Your task to perform on an android device: toggle translation in the chrome app Image 0: 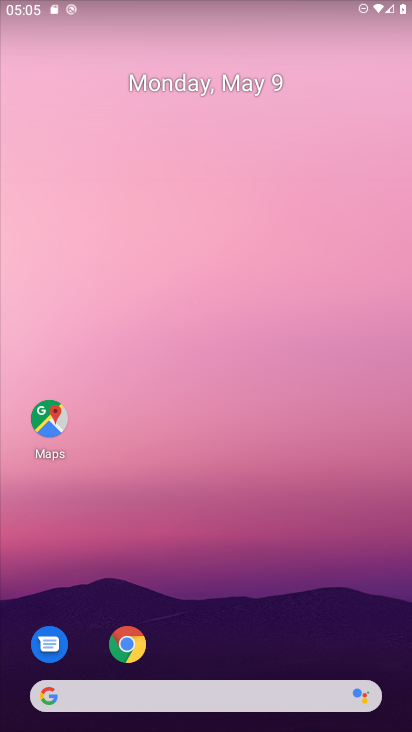
Step 0: click (128, 641)
Your task to perform on an android device: toggle translation in the chrome app Image 1: 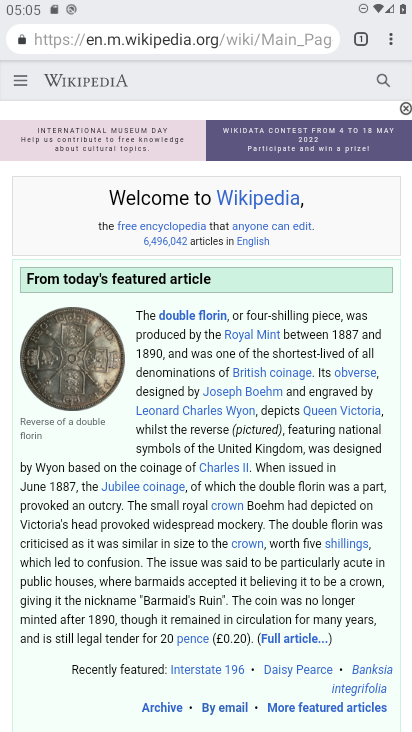
Step 1: click (392, 37)
Your task to perform on an android device: toggle translation in the chrome app Image 2: 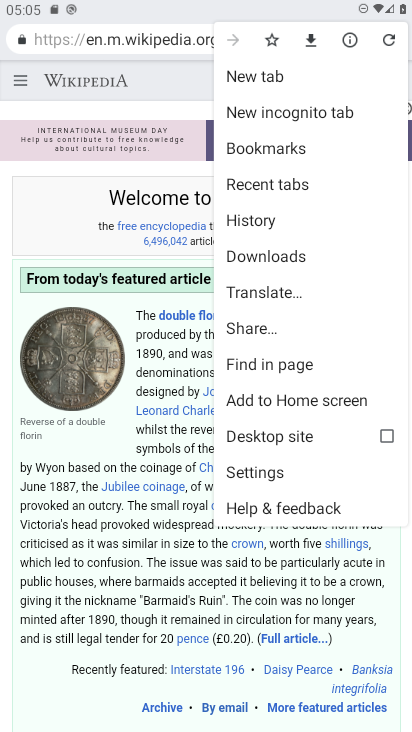
Step 2: click (263, 477)
Your task to perform on an android device: toggle translation in the chrome app Image 3: 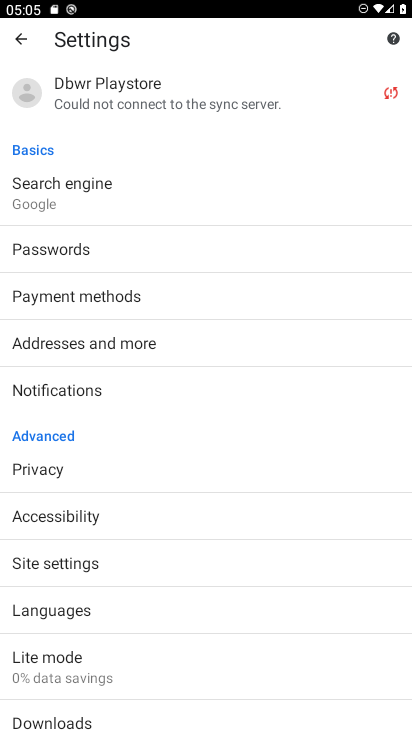
Step 3: click (67, 613)
Your task to perform on an android device: toggle translation in the chrome app Image 4: 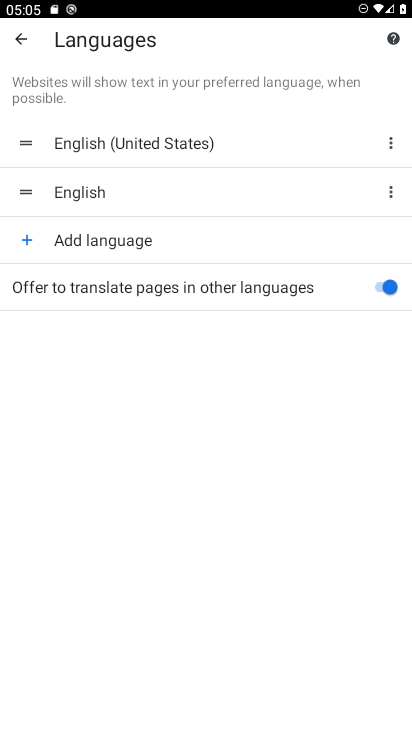
Step 4: click (390, 286)
Your task to perform on an android device: toggle translation in the chrome app Image 5: 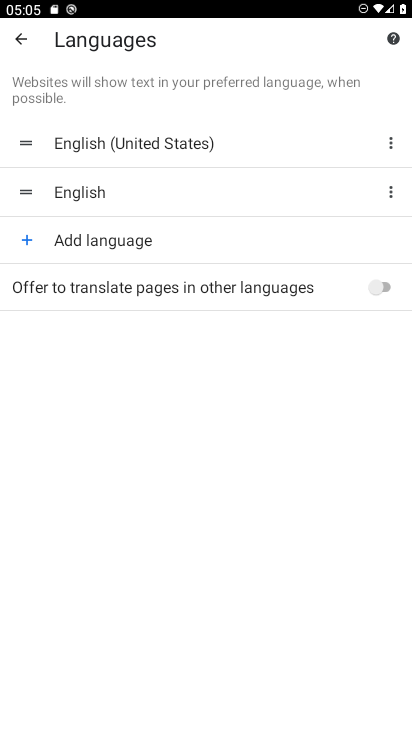
Step 5: task complete